Your task to perform on an android device: Go to settings Image 0: 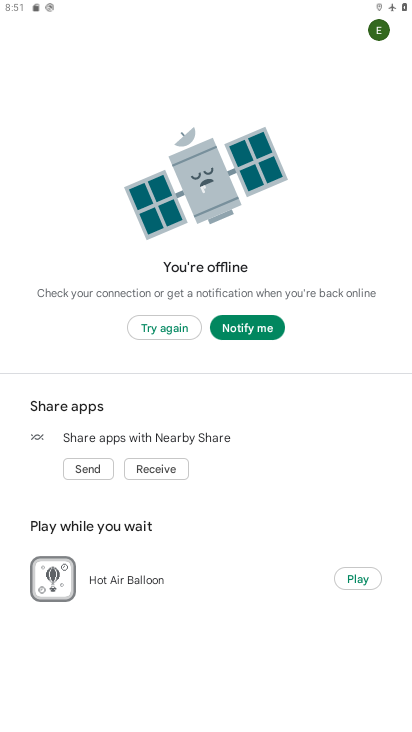
Step 0: press back button
Your task to perform on an android device: Go to settings Image 1: 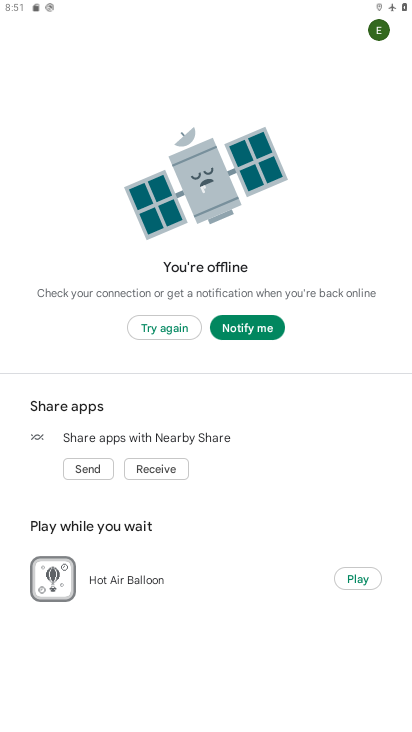
Step 1: press back button
Your task to perform on an android device: Go to settings Image 2: 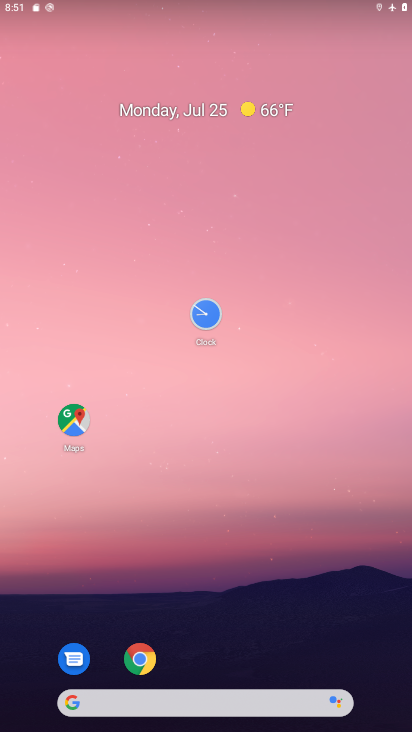
Step 2: press back button
Your task to perform on an android device: Go to settings Image 3: 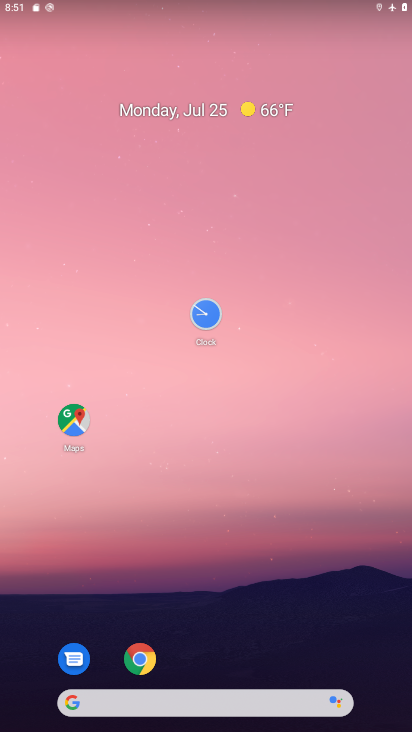
Step 3: drag from (274, 579) to (271, 27)
Your task to perform on an android device: Go to settings Image 4: 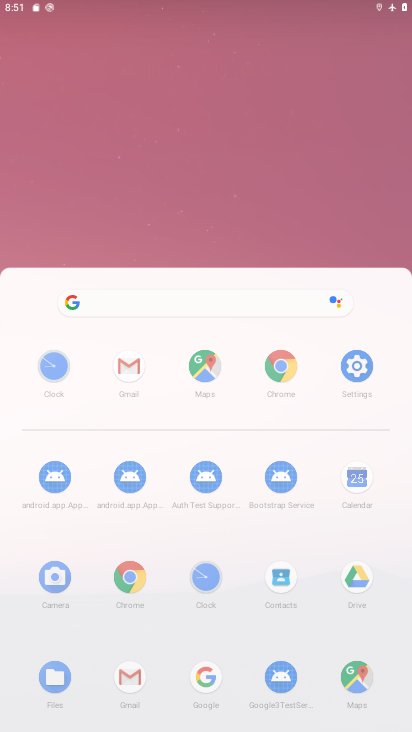
Step 4: drag from (270, 473) to (181, 128)
Your task to perform on an android device: Go to settings Image 5: 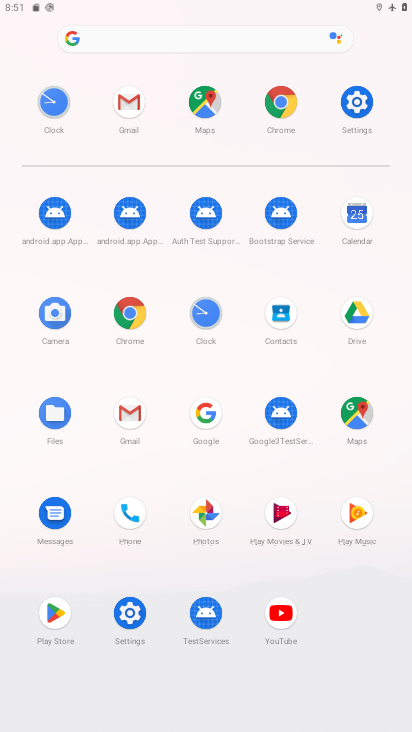
Step 5: drag from (173, 531) to (153, 174)
Your task to perform on an android device: Go to settings Image 6: 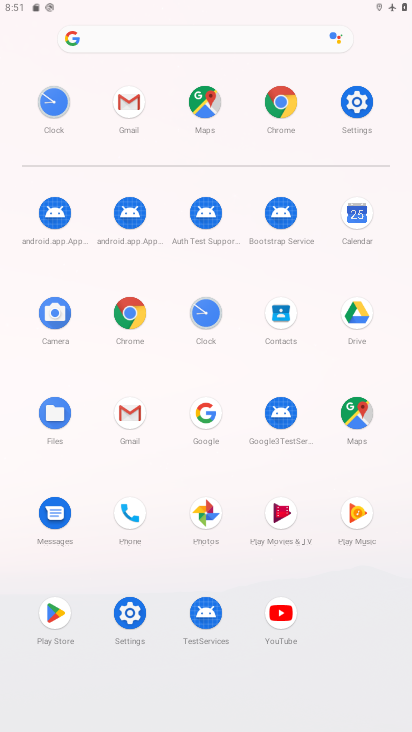
Step 6: click (119, 621)
Your task to perform on an android device: Go to settings Image 7: 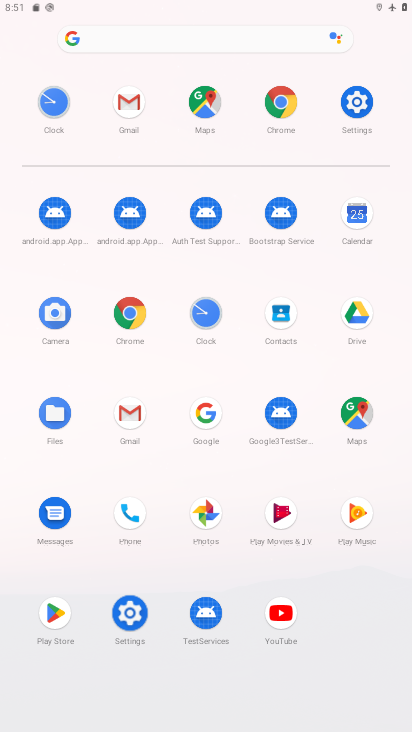
Step 7: click (121, 614)
Your task to perform on an android device: Go to settings Image 8: 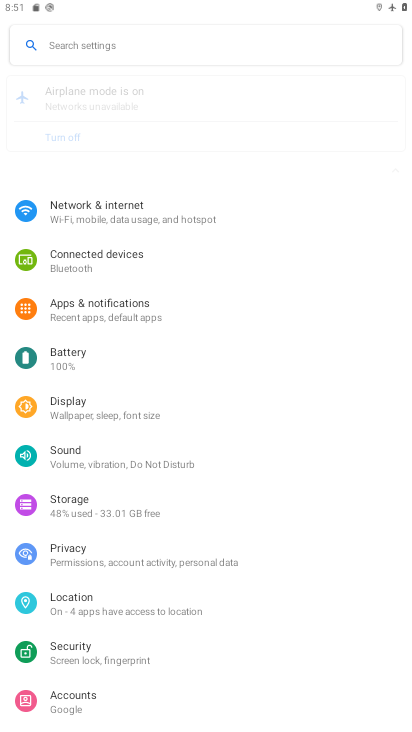
Step 8: click (126, 614)
Your task to perform on an android device: Go to settings Image 9: 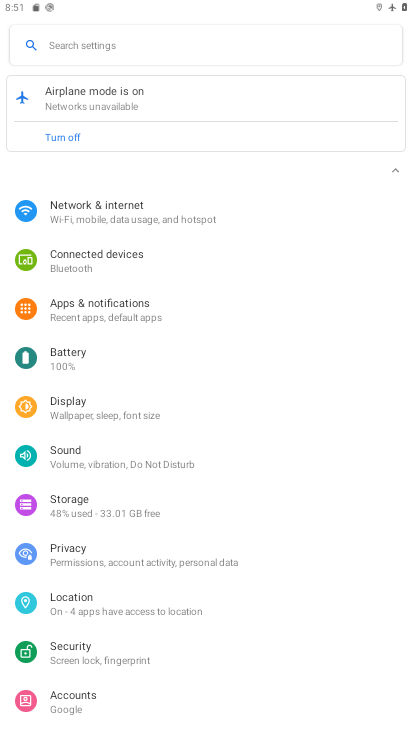
Step 9: click (126, 615)
Your task to perform on an android device: Go to settings Image 10: 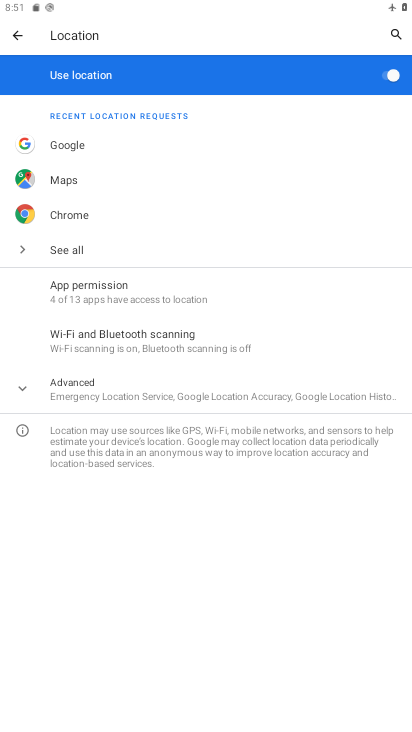
Step 10: click (68, 386)
Your task to perform on an android device: Go to settings Image 11: 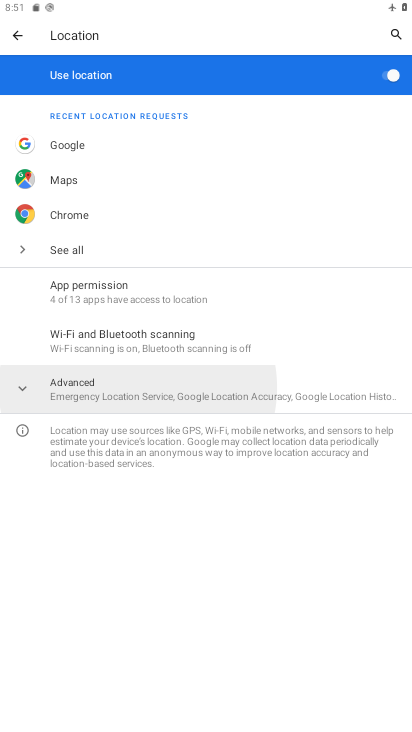
Step 11: click (68, 386)
Your task to perform on an android device: Go to settings Image 12: 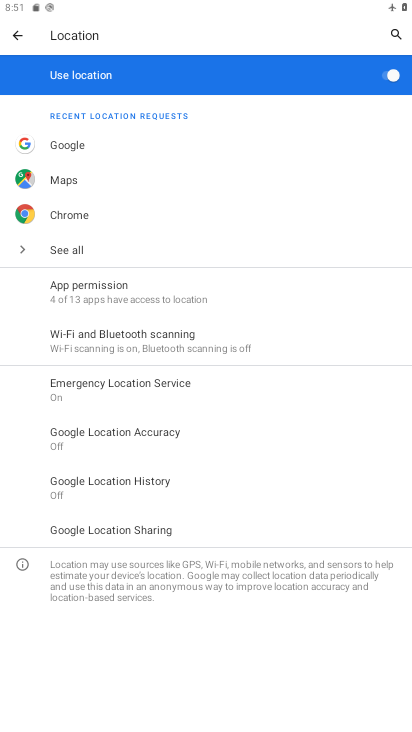
Step 12: click (80, 384)
Your task to perform on an android device: Go to settings Image 13: 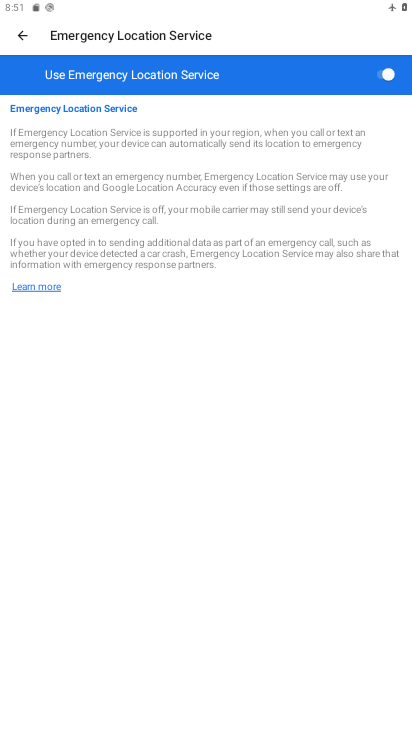
Step 13: click (12, 38)
Your task to perform on an android device: Go to settings Image 14: 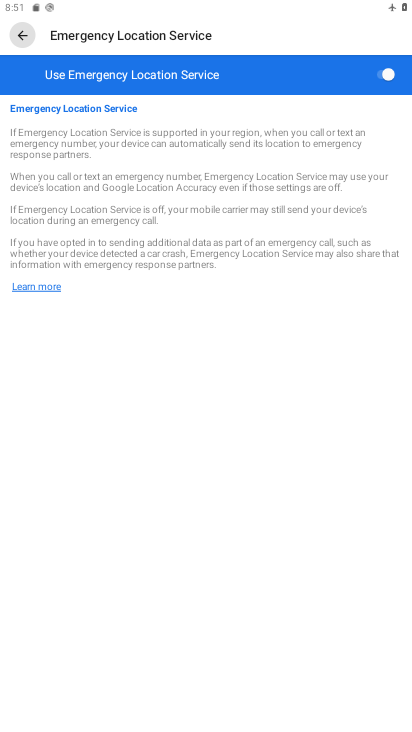
Step 14: click (13, 35)
Your task to perform on an android device: Go to settings Image 15: 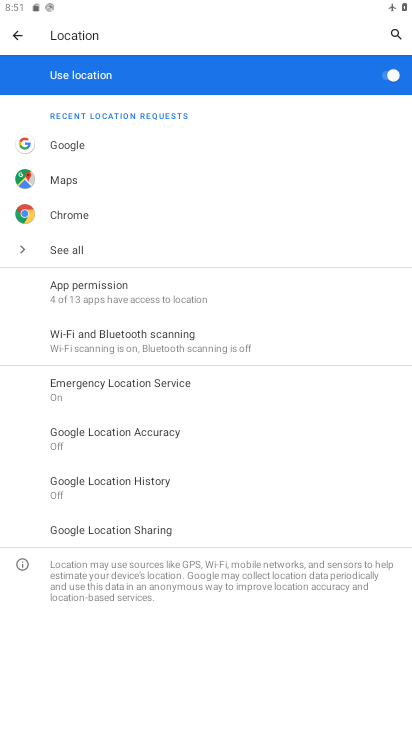
Step 15: click (10, 16)
Your task to perform on an android device: Go to settings Image 16: 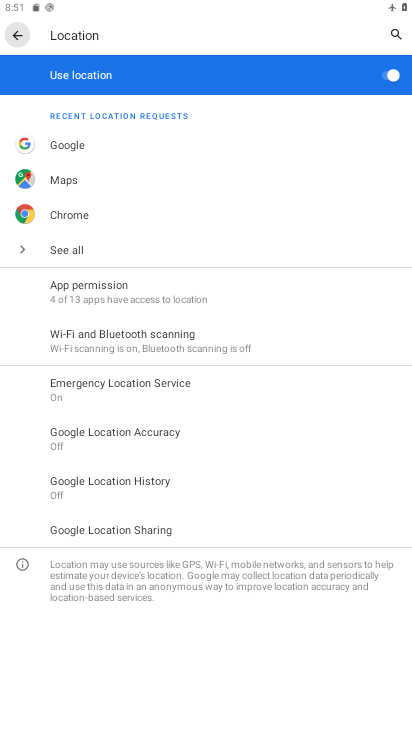
Step 16: click (13, 28)
Your task to perform on an android device: Go to settings Image 17: 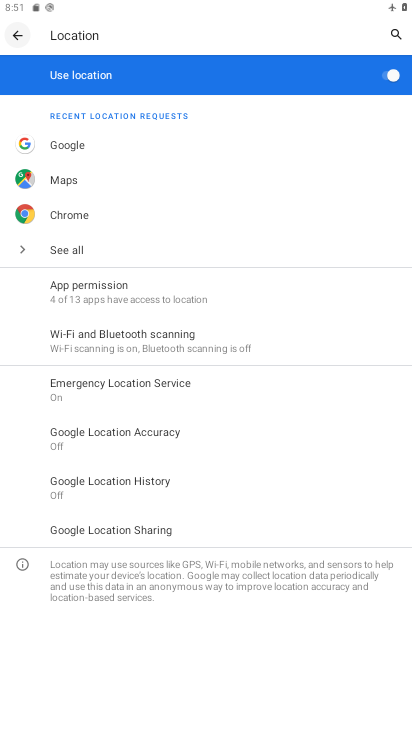
Step 17: click (14, 29)
Your task to perform on an android device: Go to settings Image 18: 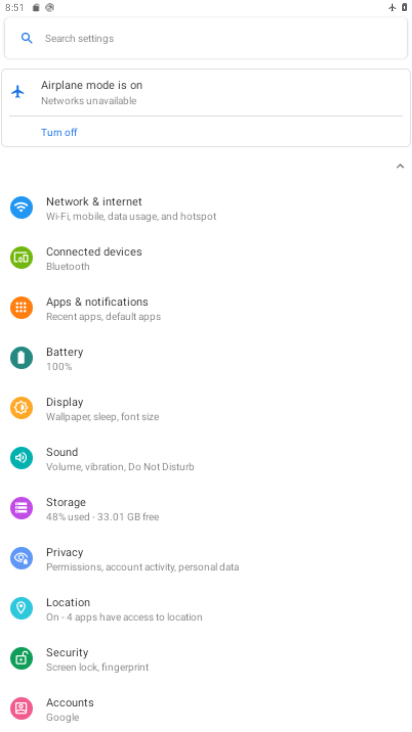
Step 18: click (14, 29)
Your task to perform on an android device: Go to settings Image 19: 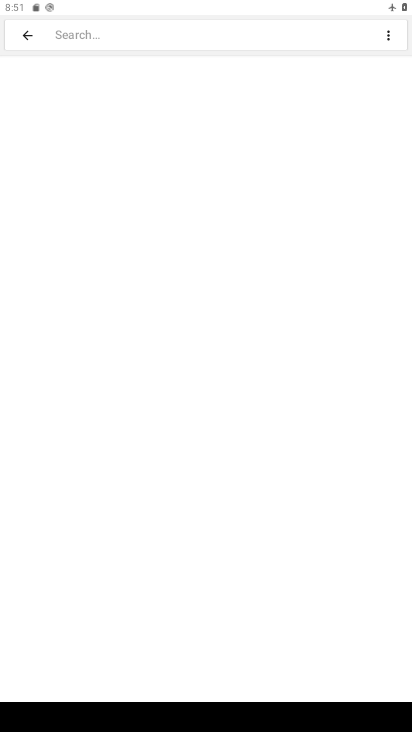
Step 19: click (27, 35)
Your task to perform on an android device: Go to settings Image 20: 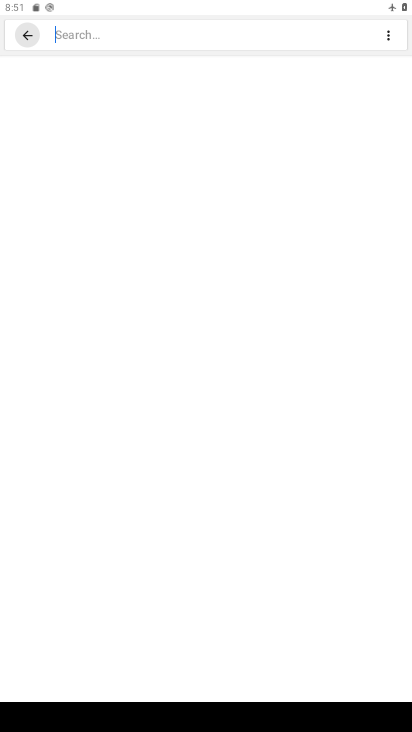
Step 20: click (24, 34)
Your task to perform on an android device: Go to settings Image 21: 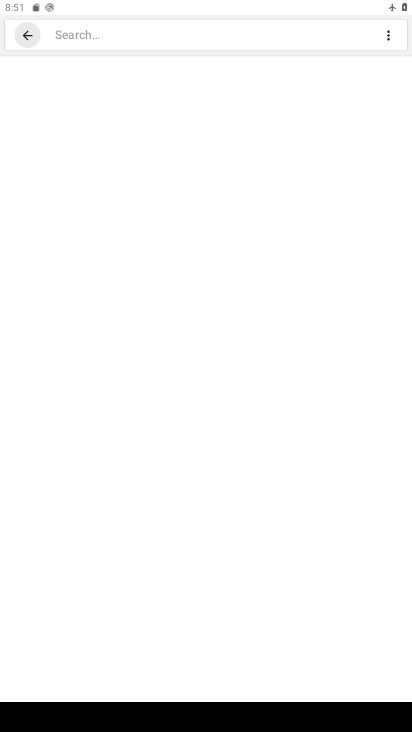
Step 21: click (24, 34)
Your task to perform on an android device: Go to settings Image 22: 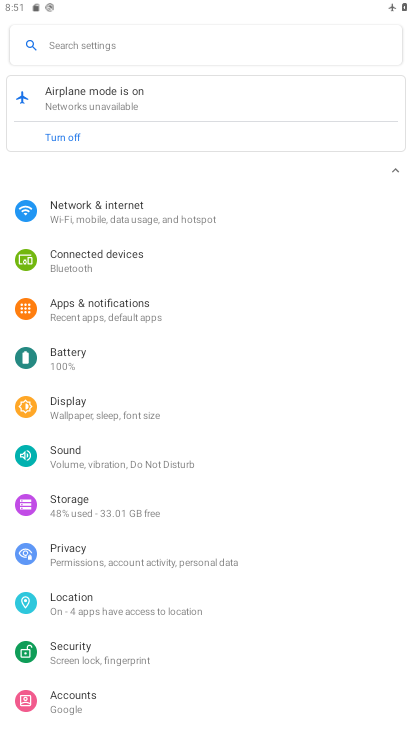
Step 22: task complete